Your task to perform on an android device: move a message to another label in the gmail app Image 0: 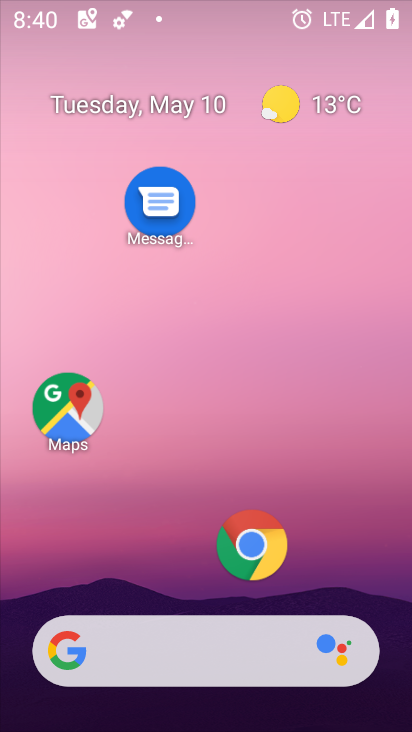
Step 0: drag from (199, 582) to (234, 46)
Your task to perform on an android device: move a message to another label in the gmail app Image 1: 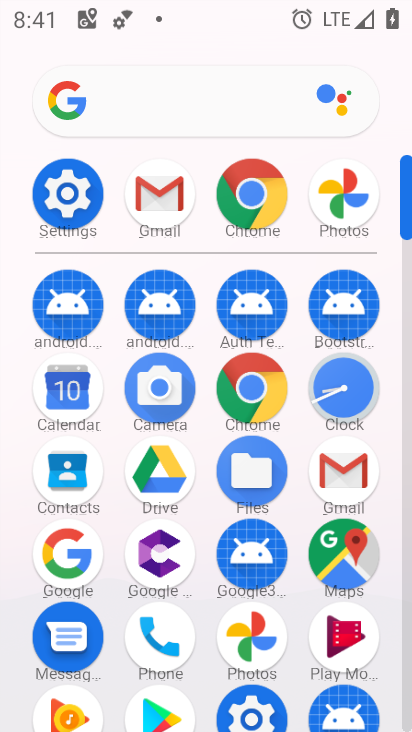
Step 1: click (348, 464)
Your task to perform on an android device: move a message to another label in the gmail app Image 2: 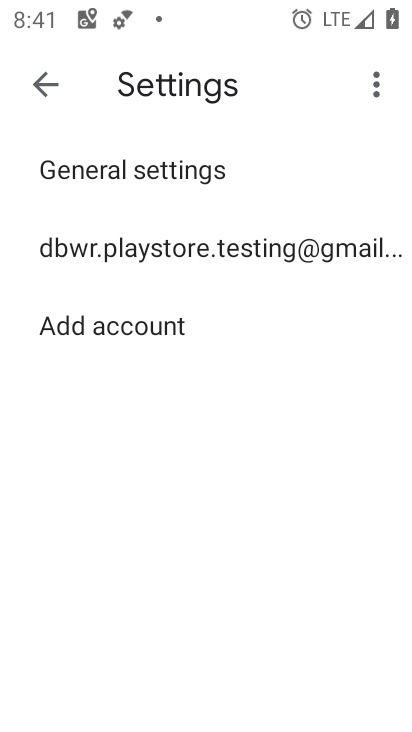
Step 2: click (49, 82)
Your task to perform on an android device: move a message to another label in the gmail app Image 3: 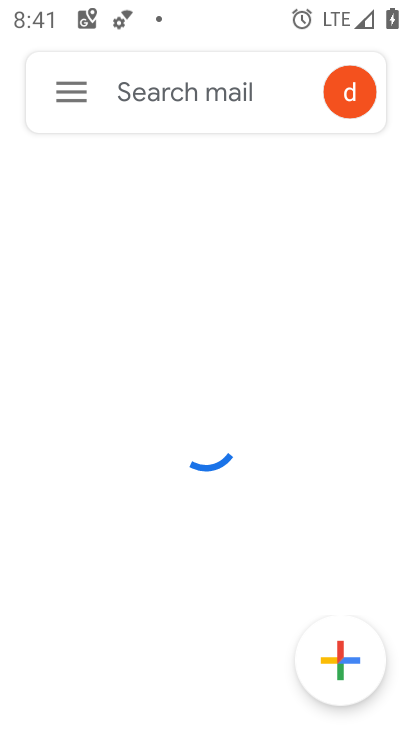
Step 3: task complete